Your task to perform on an android device: Go to internet settings Image 0: 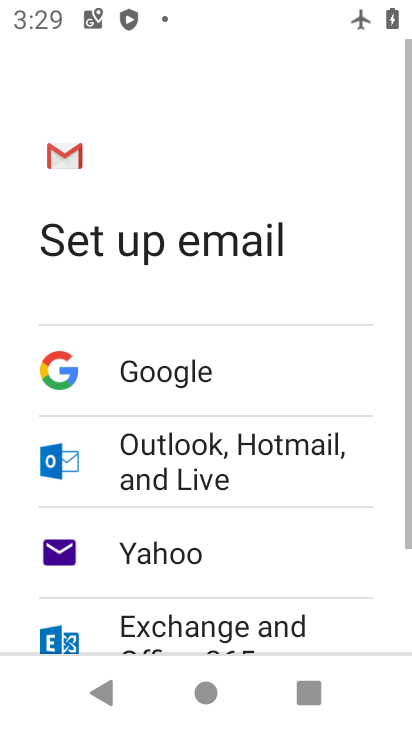
Step 0: press home button
Your task to perform on an android device: Go to internet settings Image 1: 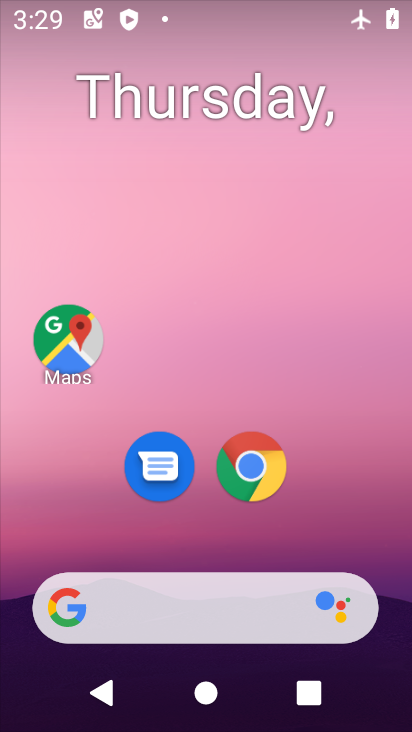
Step 1: drag from (264, 601) to (292, 20)
Your task to perform on an android device: Go to internet settings Image 2: 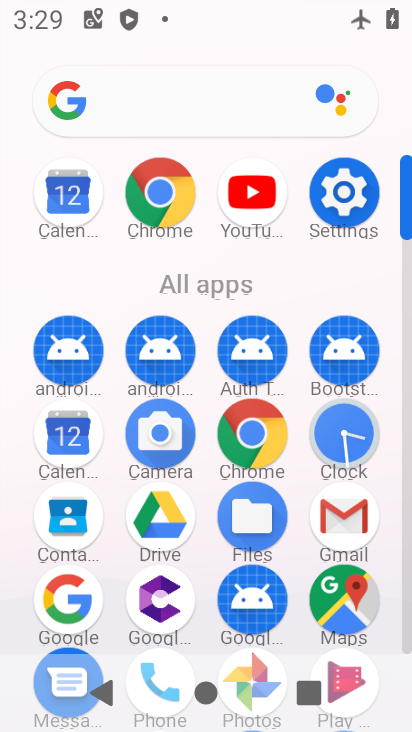
Step 2: drag from (295, 556) to (347, 146)
Your task to perform on an android device: Go to internet settings Image 3: 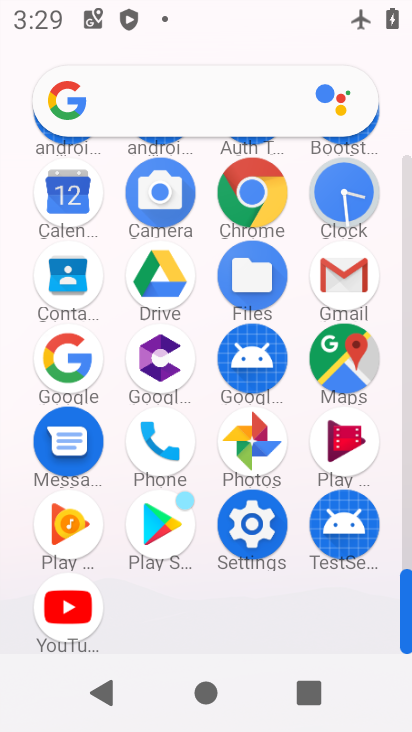
Step 3: click (254, 541)
Your task to perform on an android device: Go to internet settings Image 4: 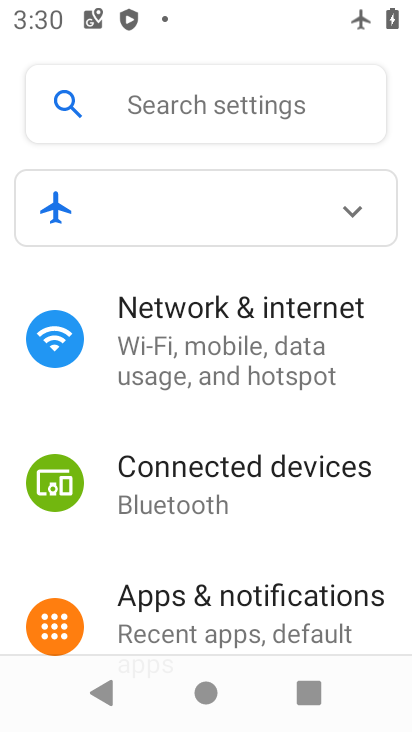
Step 4: click (331, 355)
Your task to perform on an android device: Go to internet settings Image 5: 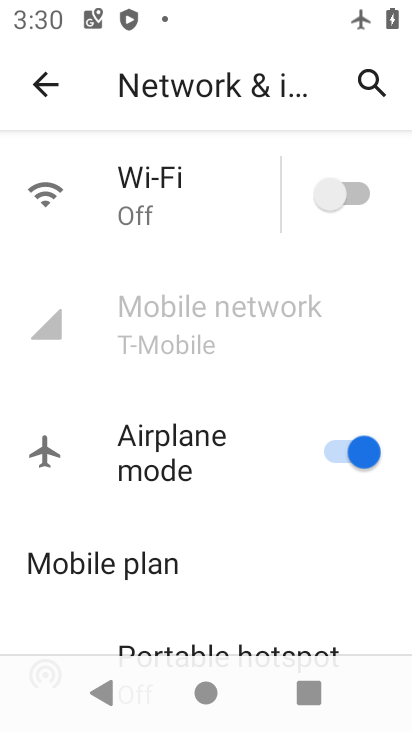
Step 5: task complete